Your task to perform on an android device: turn smart compose on in the gmail app Image 0: 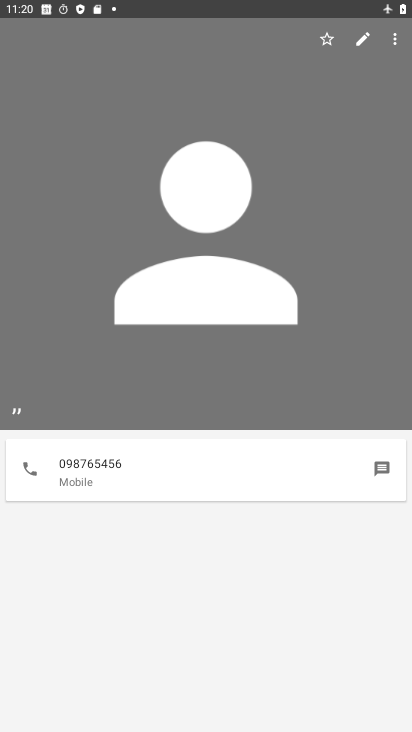
Step 0: press home button
Your task to perform on an android device: turn smart compose on in the gmail app Image 1: 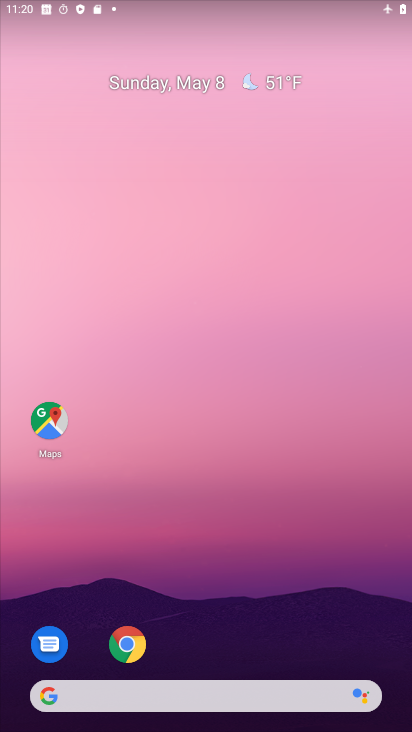
Step 1: drag from (204, 629) to (209, 155)
Your task to perform on an android device: turn smart compose on in the gmail app Image 2: 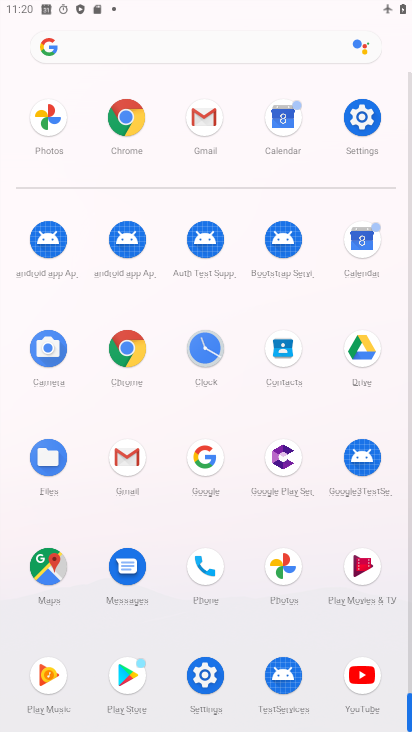
Step 2: click (125, 448)
Your task to perform on an android device: turn smart compose on in the gmail app Image 3: 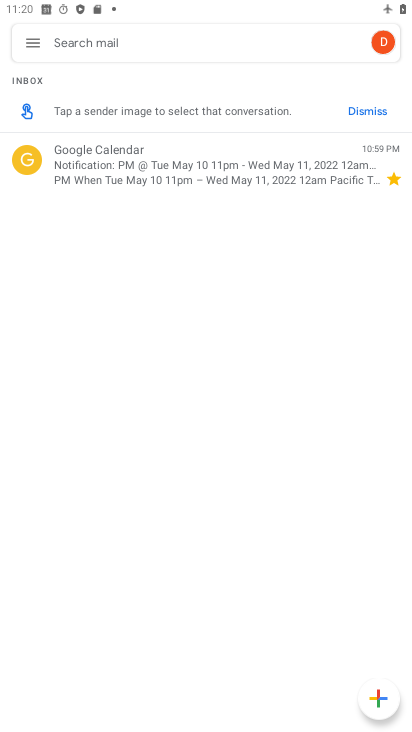
Step 3: click (27, 35)
Your task to perform on an android device: turn smart compose on in the gmail app Image 4: 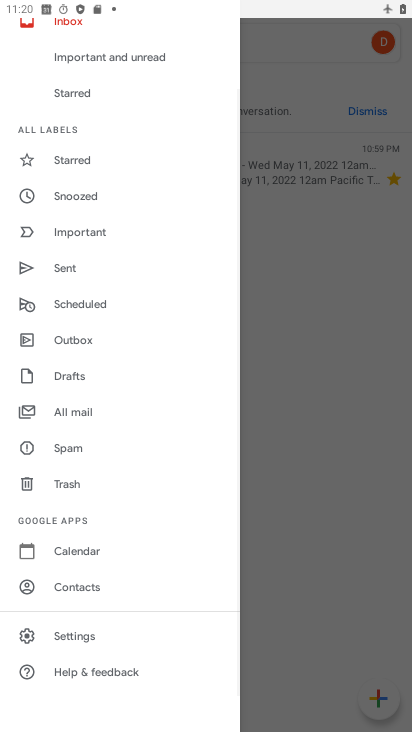
Step 4: drag from (22, 617) to (142, 52)
Your task to perform on an android device: turn smart compose on in the gmail app Image 5: 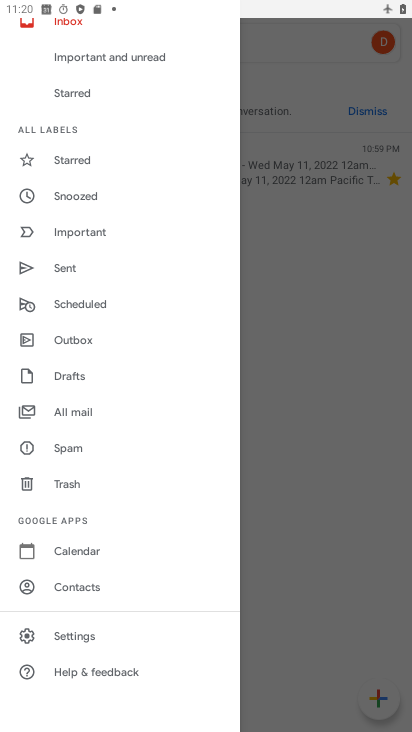
Step 5: click (104, 632)
Your task to perform on an android device: turn smart compose on in the gmail app Image 6: 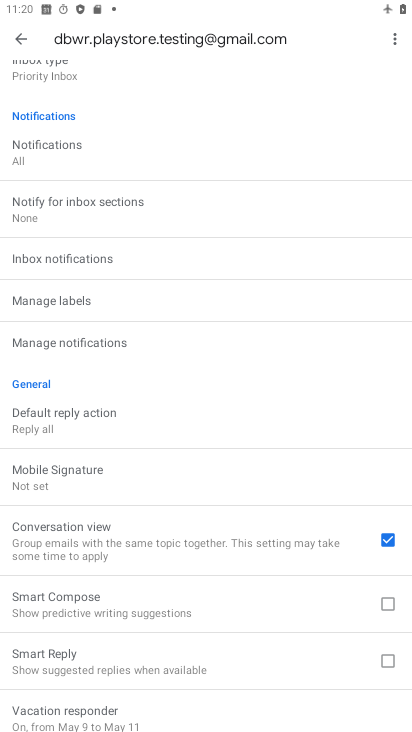
Step 6: click (388, 605)
Your task to perform on an android device: turn smart compose on in the gmail app Image 7: 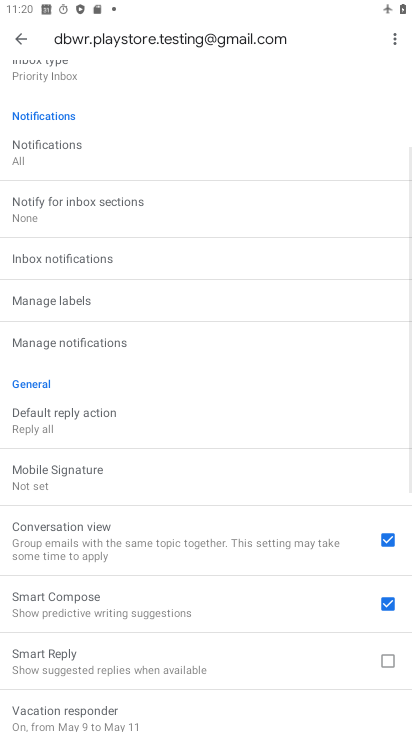
Step 7: task complete